Your task to perform on an android device: Open ESPN.com Image 0: 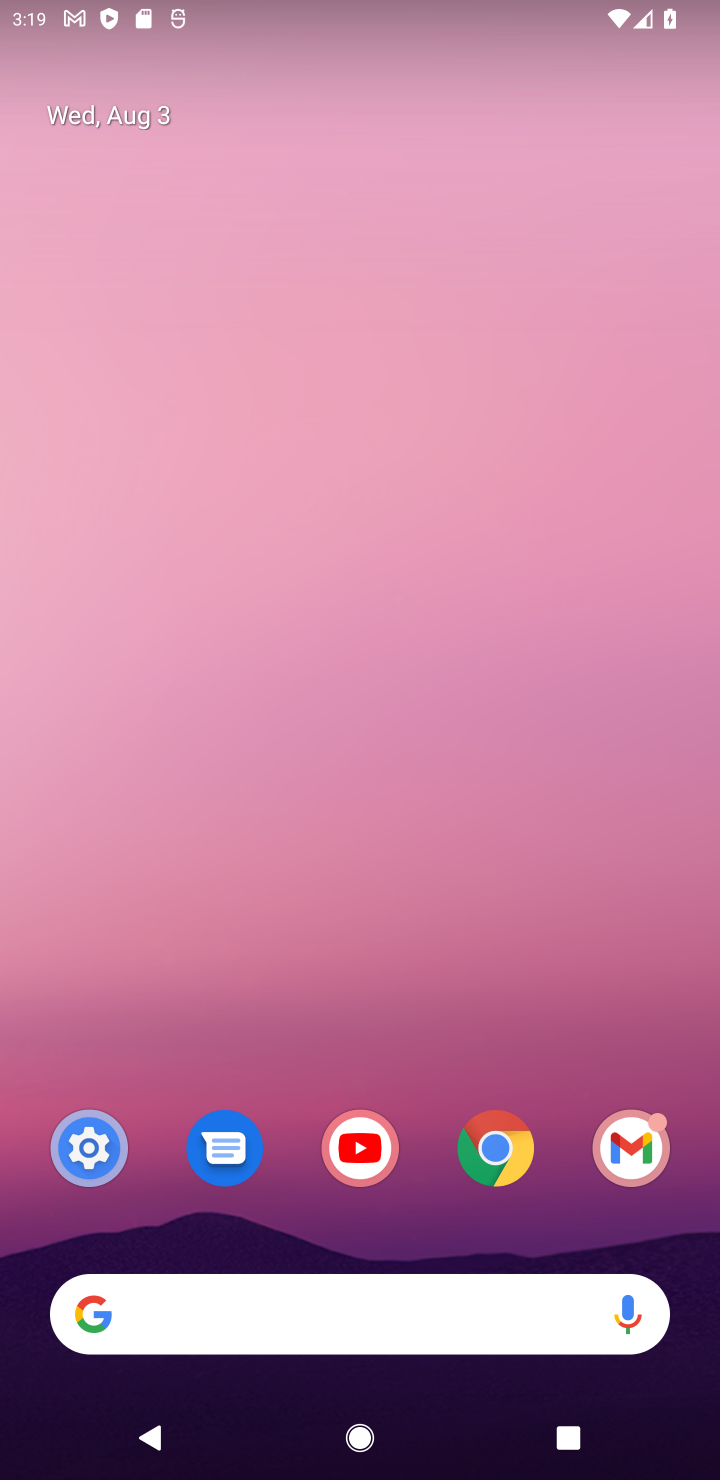
Step 0: drag from (404, 1090) to (497, 95)
Your task to perform on an android device: Open ESPN.com Image 1: 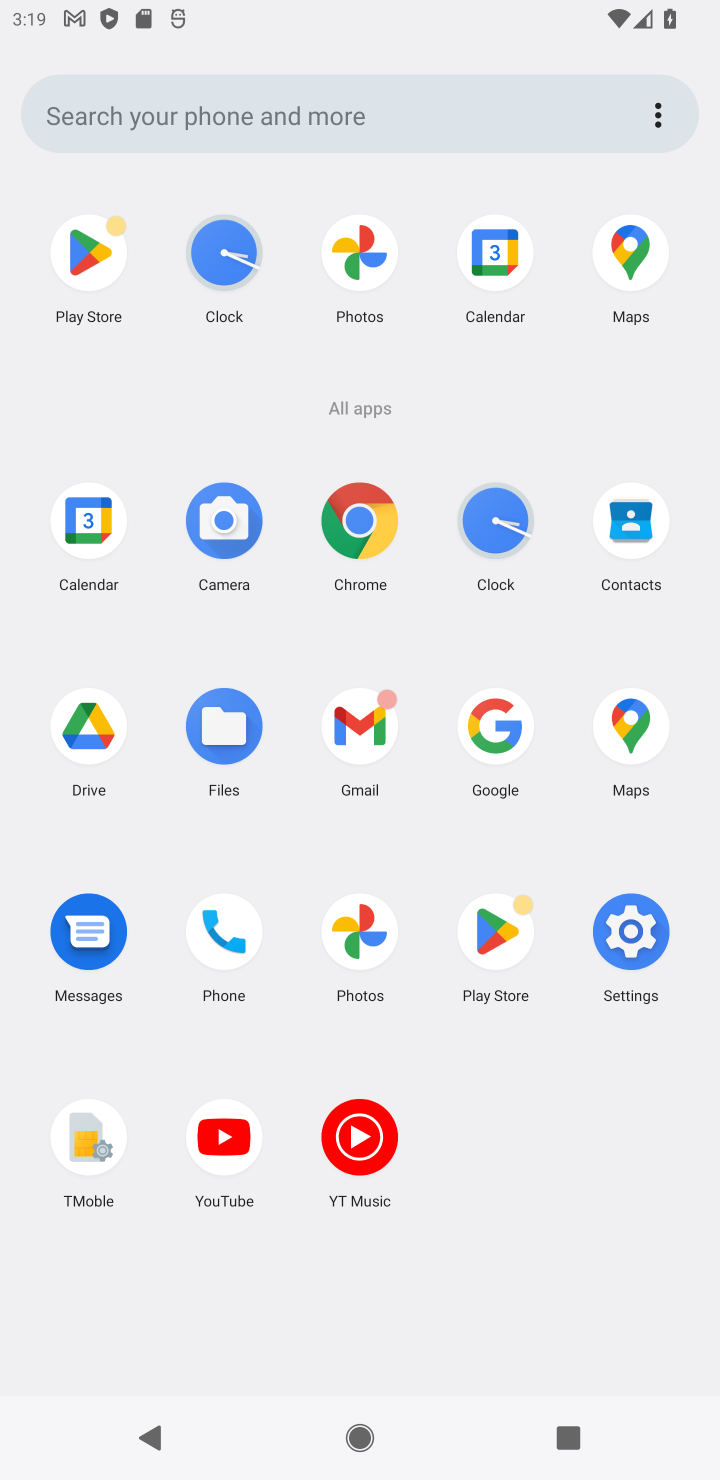
Step 1: click (366, 537)
Your task to perform on an android device: Open ESPN.com Image 2: 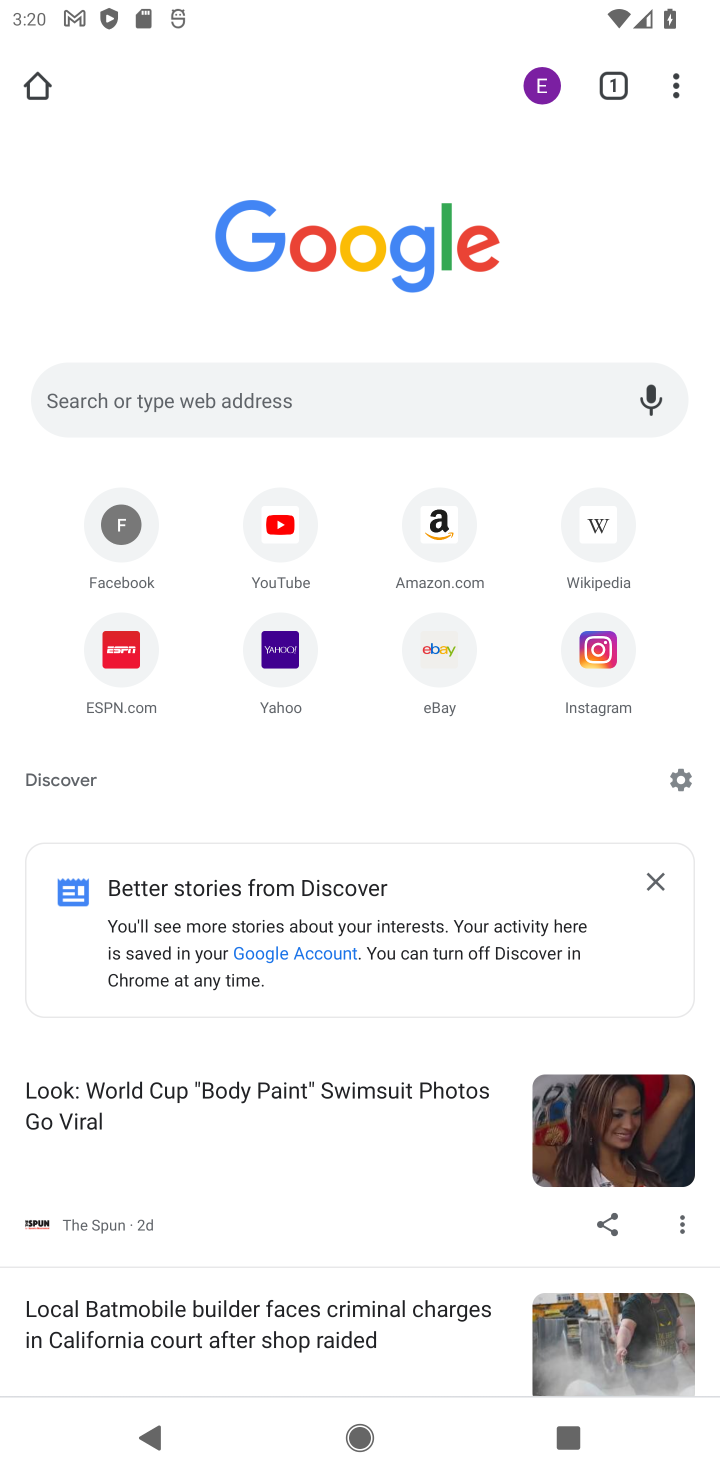
Step 2: click (466, 389)
Your task to perform on an android device: Open ESPN.com Image 3: 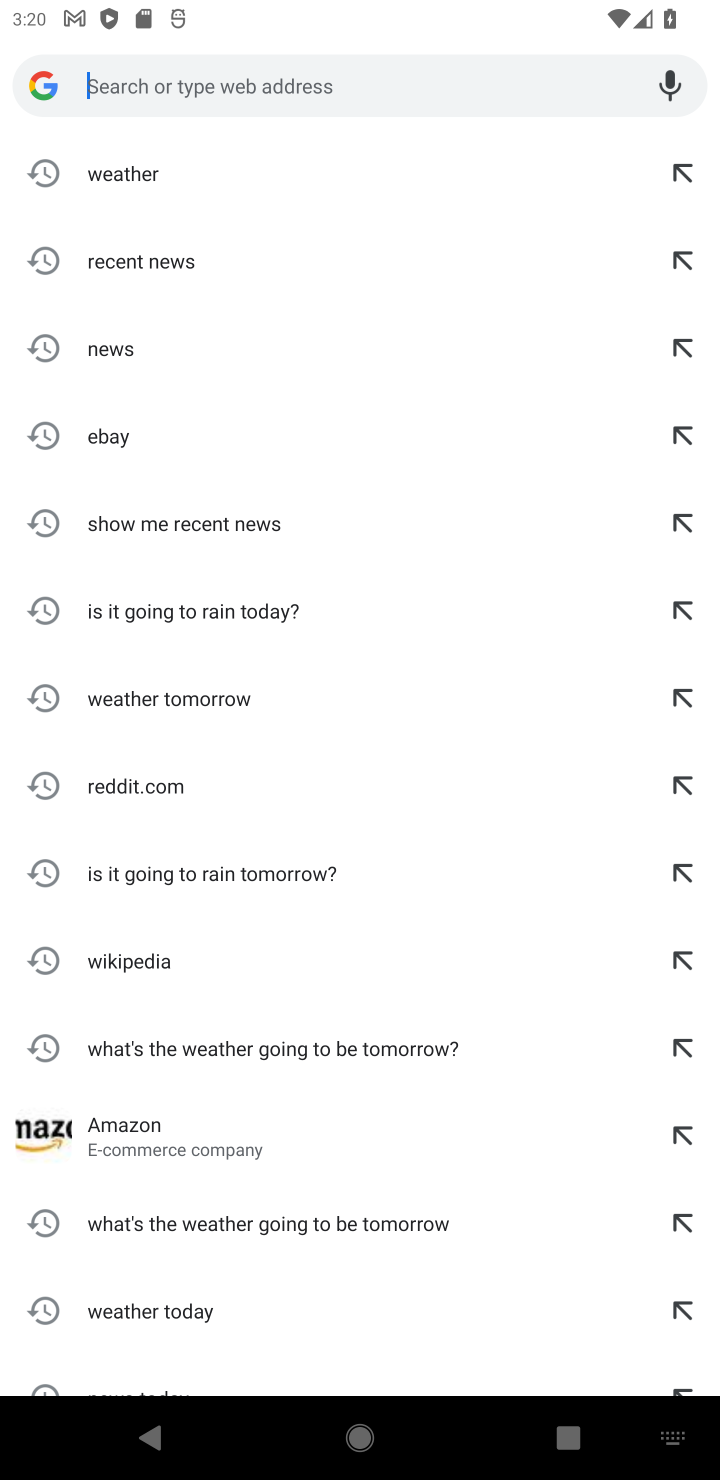
Step 3: type "espn.com"
Your task to perform on an android device: Open ESPN.com Image 4: 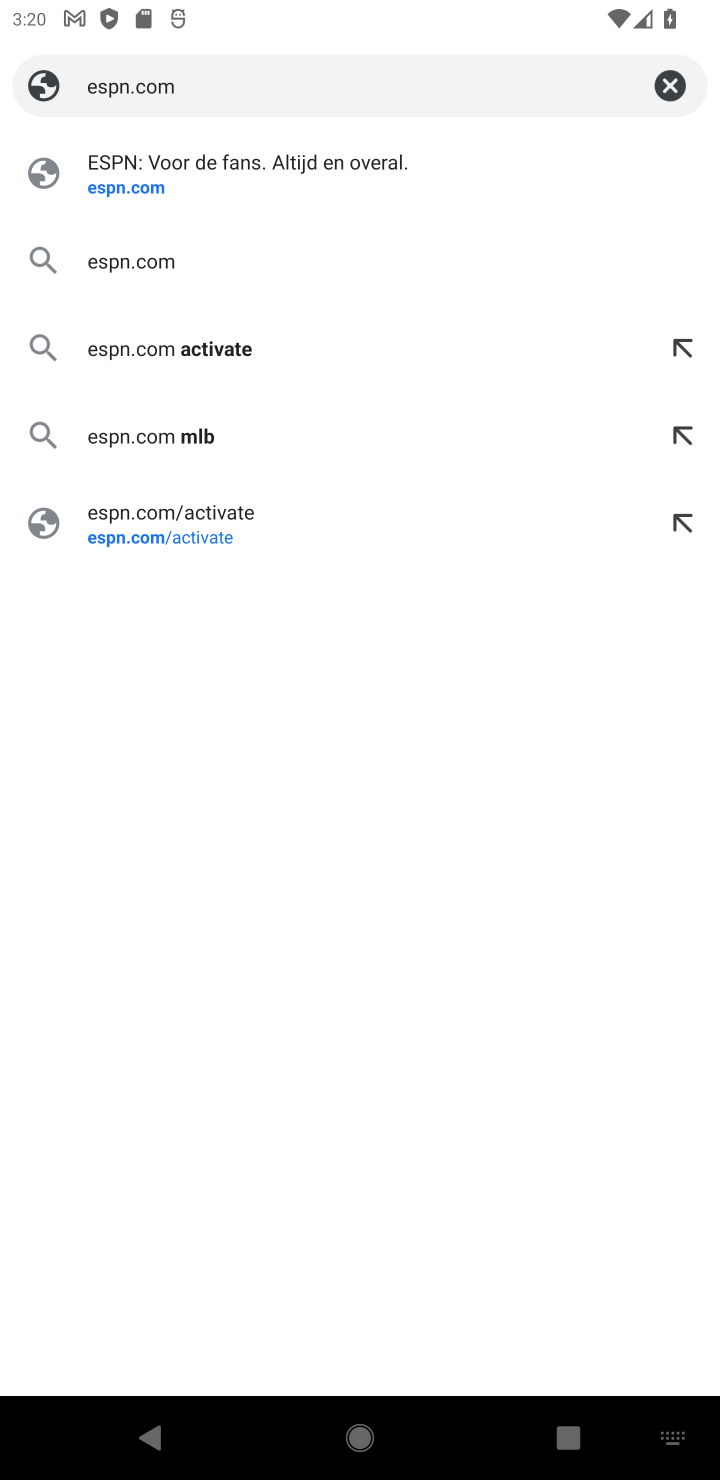
Step 4: click (153, 175)
Your task to perform on an android device: Open ESPN.com Image 5: 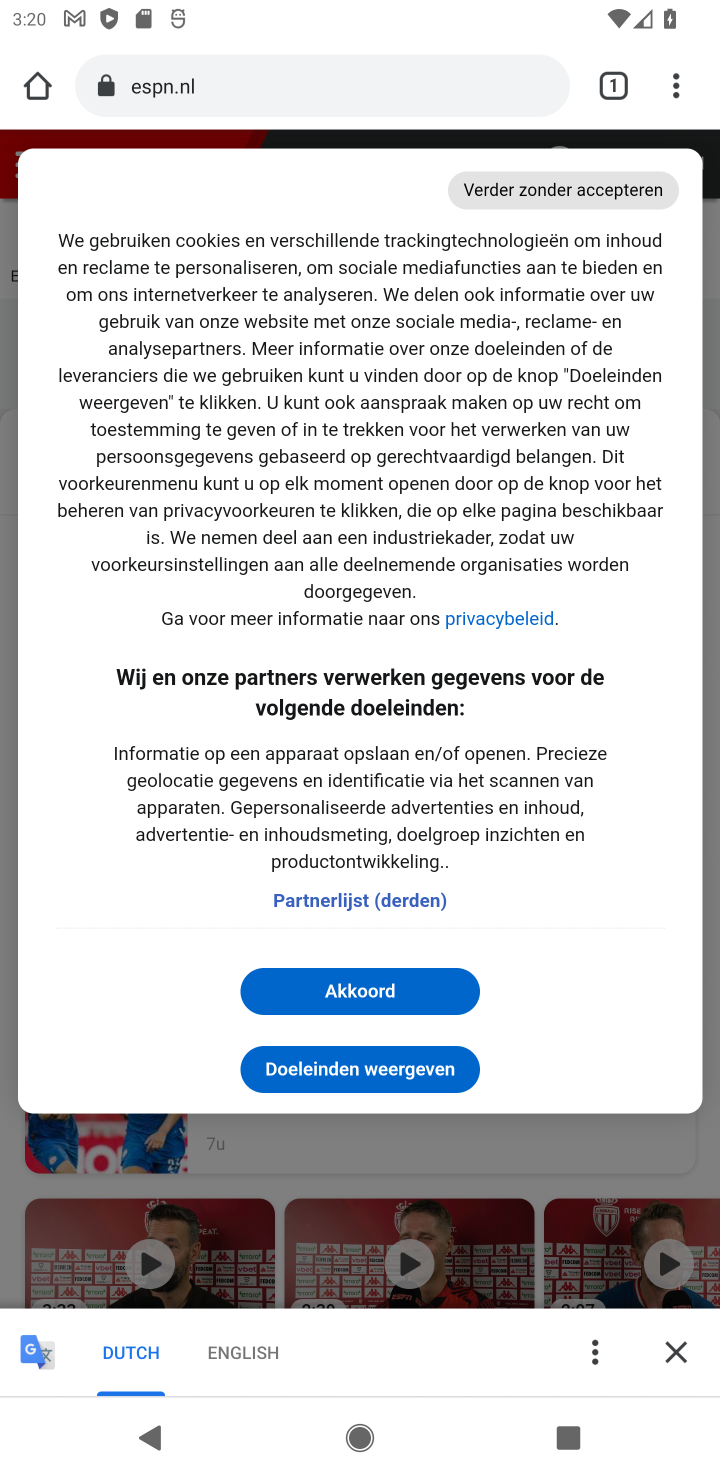
Step 5: task complete